Your task to perform on an android device: Open Google Maps Image 0: 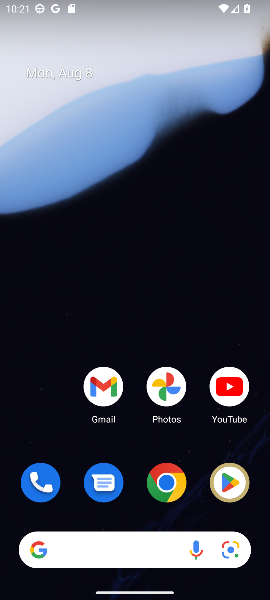
Step 0: drag from (128, 446) to (218, 30)
Your task to perform on an android device: Open Google Maps Image 1: 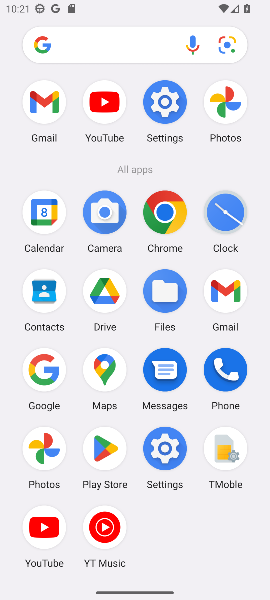
Step 1: click (99, 359)
Your task to perform on an android device: Open Google Maps Image 2: 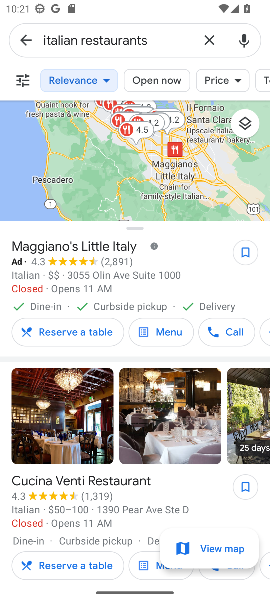
Step 2: task complete